Your task to perform on an android device: Search for a new hair product Image 0: 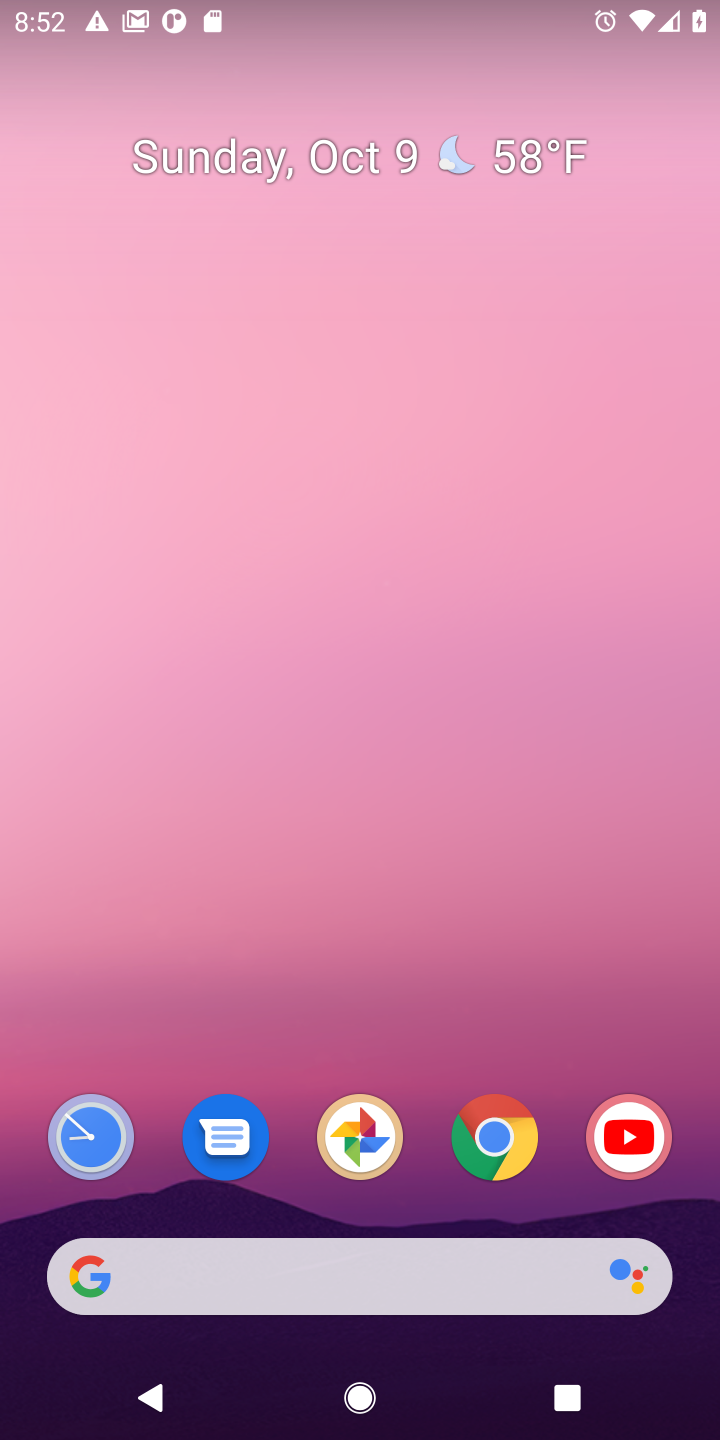
Step 0: drag from (439, 1049) to (457, 63)
Your task to perform on an android device: Search for a new hair product Image 1: 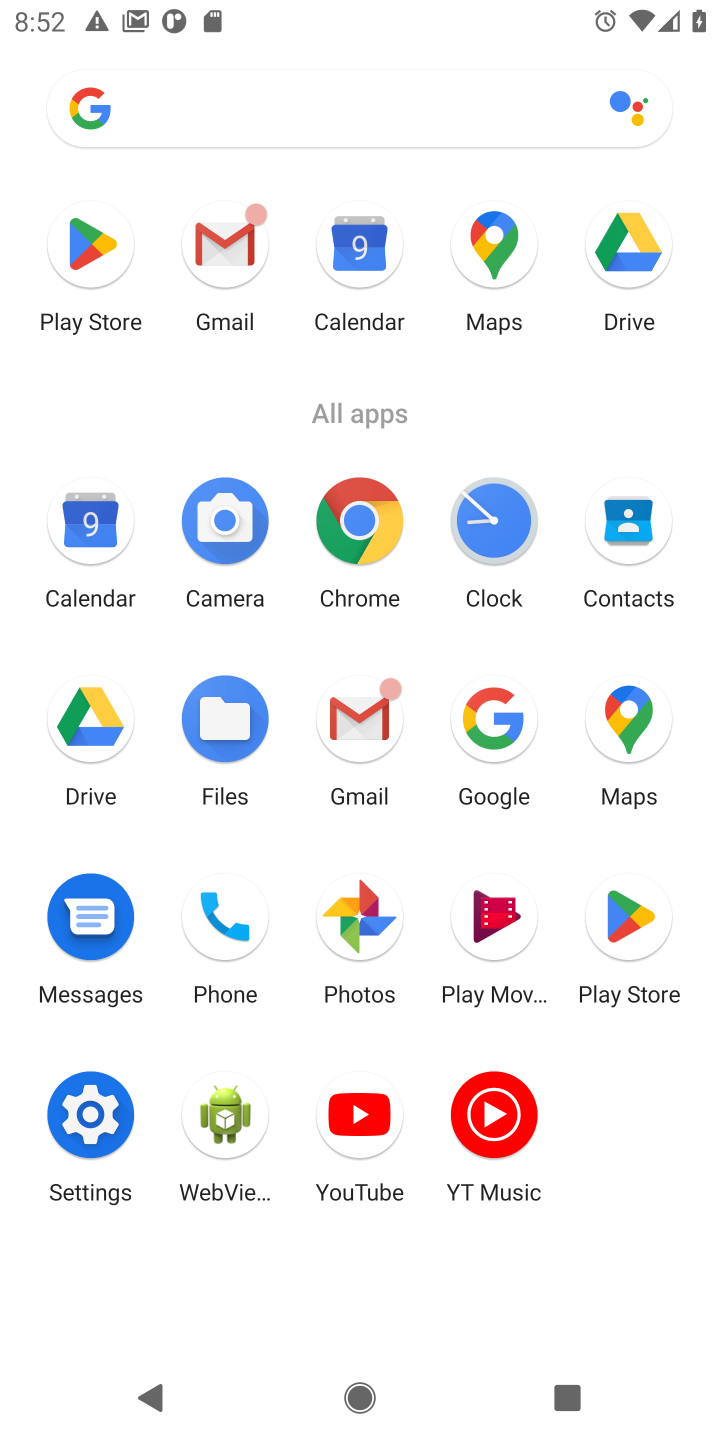
Step 1: click (343, 519)
Your task to perform on an android device: Search for a new hair product Image 2: 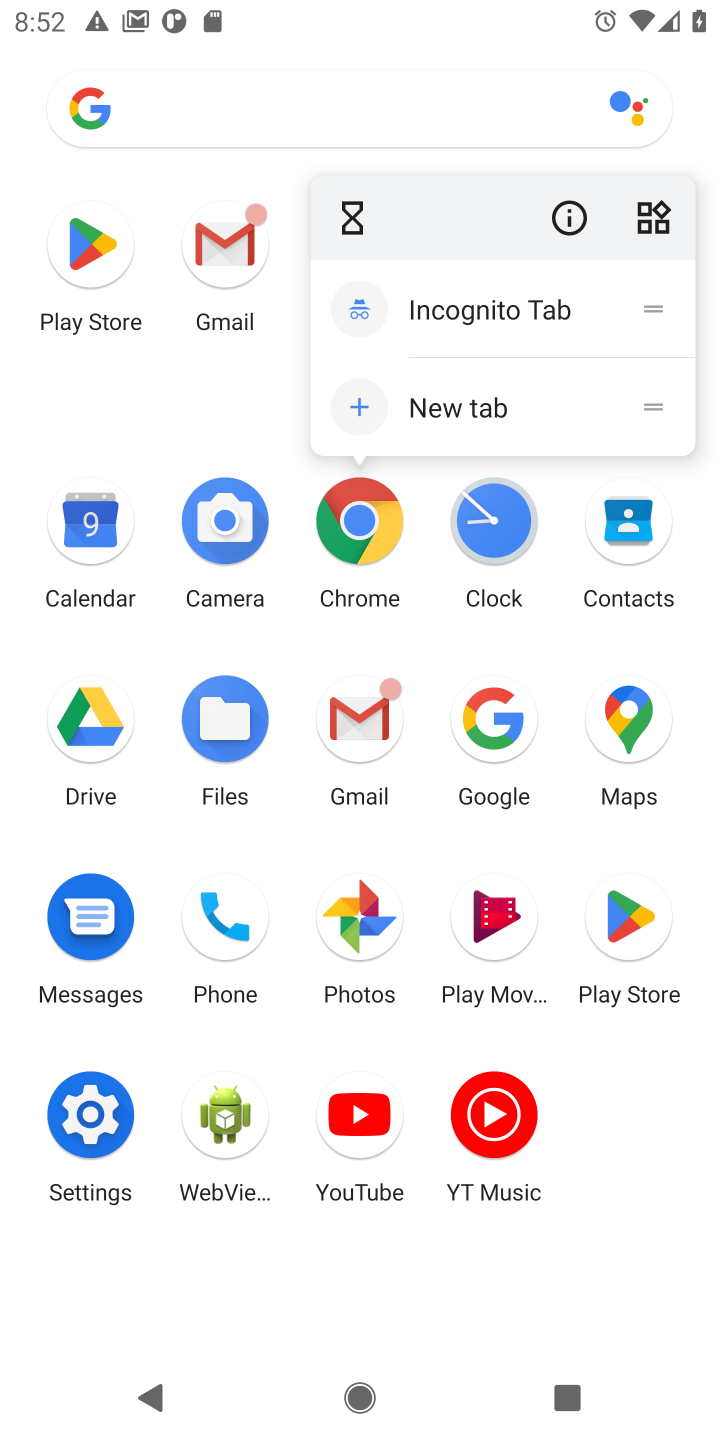
Step 2: click (355, 522)
Your task to perform on an android device: Search for a new hair product Image 3: 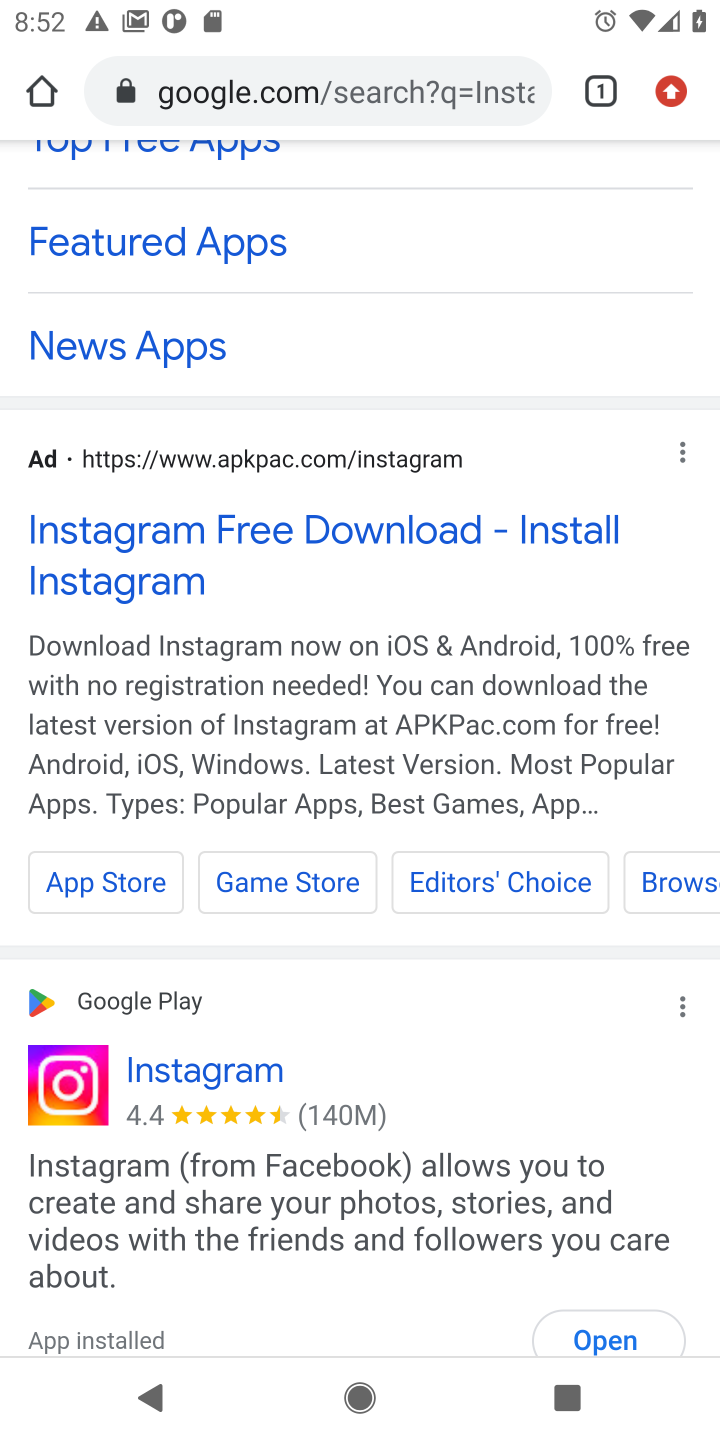
Step 3: click (420, 97)
Your task to perform on an android device: Search for a new hair product Image 4: 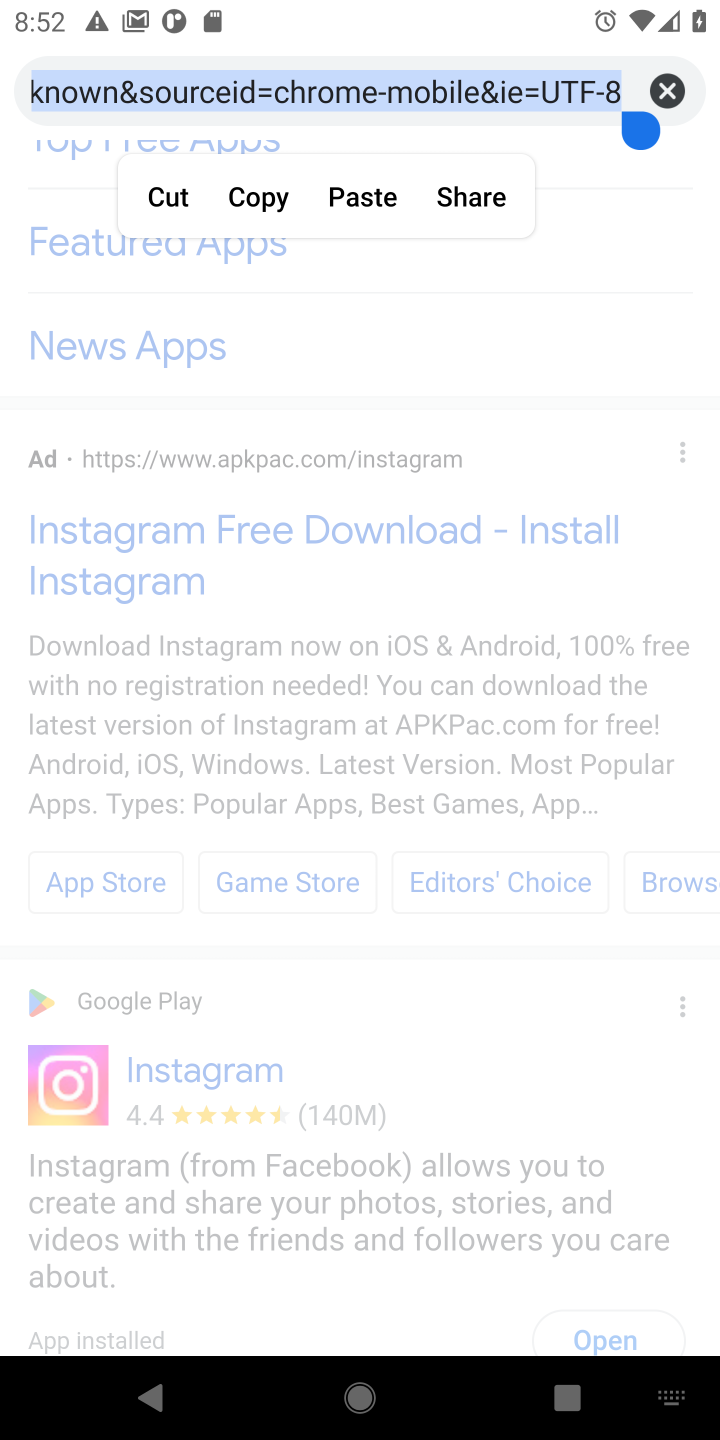
Step 4: click (673, 89)
Your task to perform on an android device: Search for a new hair product Image 5: 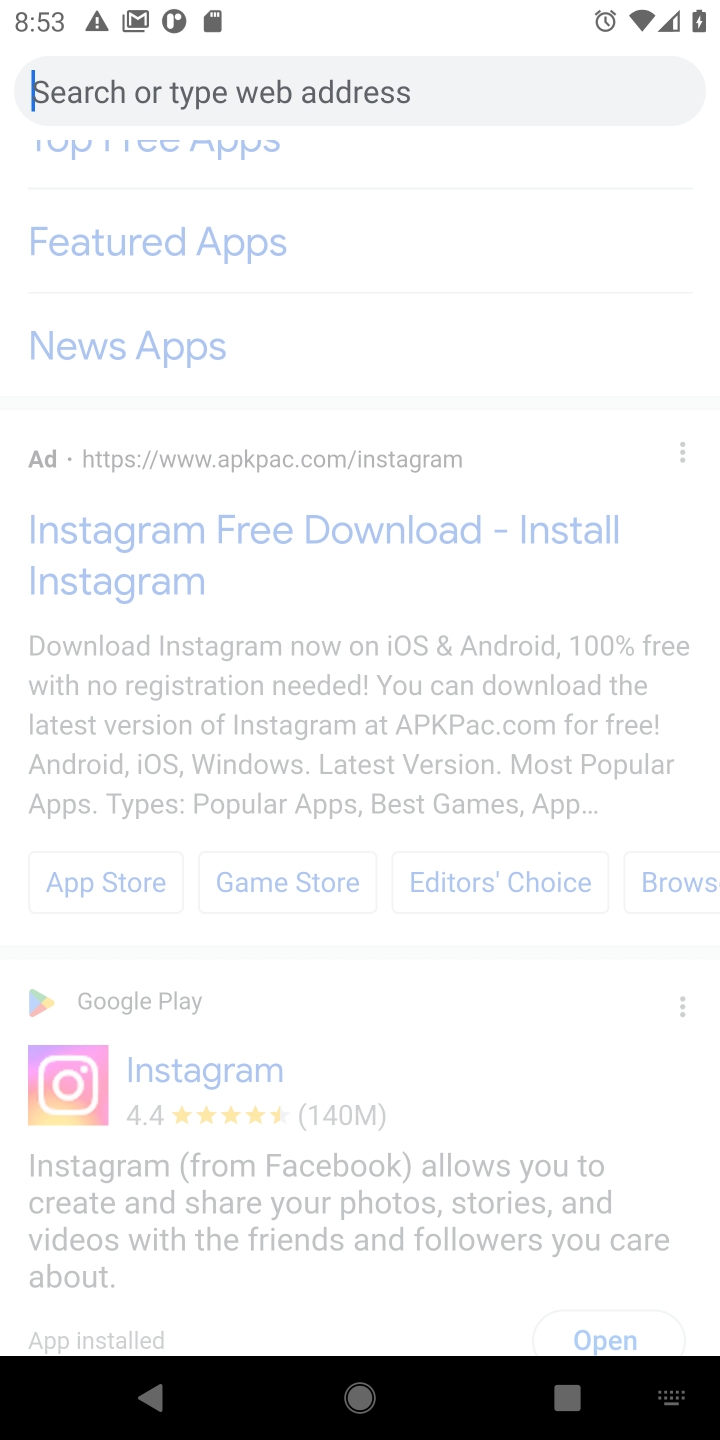
Step 5: type "Search for a new hair product"
Your task to perform on an android device: Search for a new hair product Image 6: 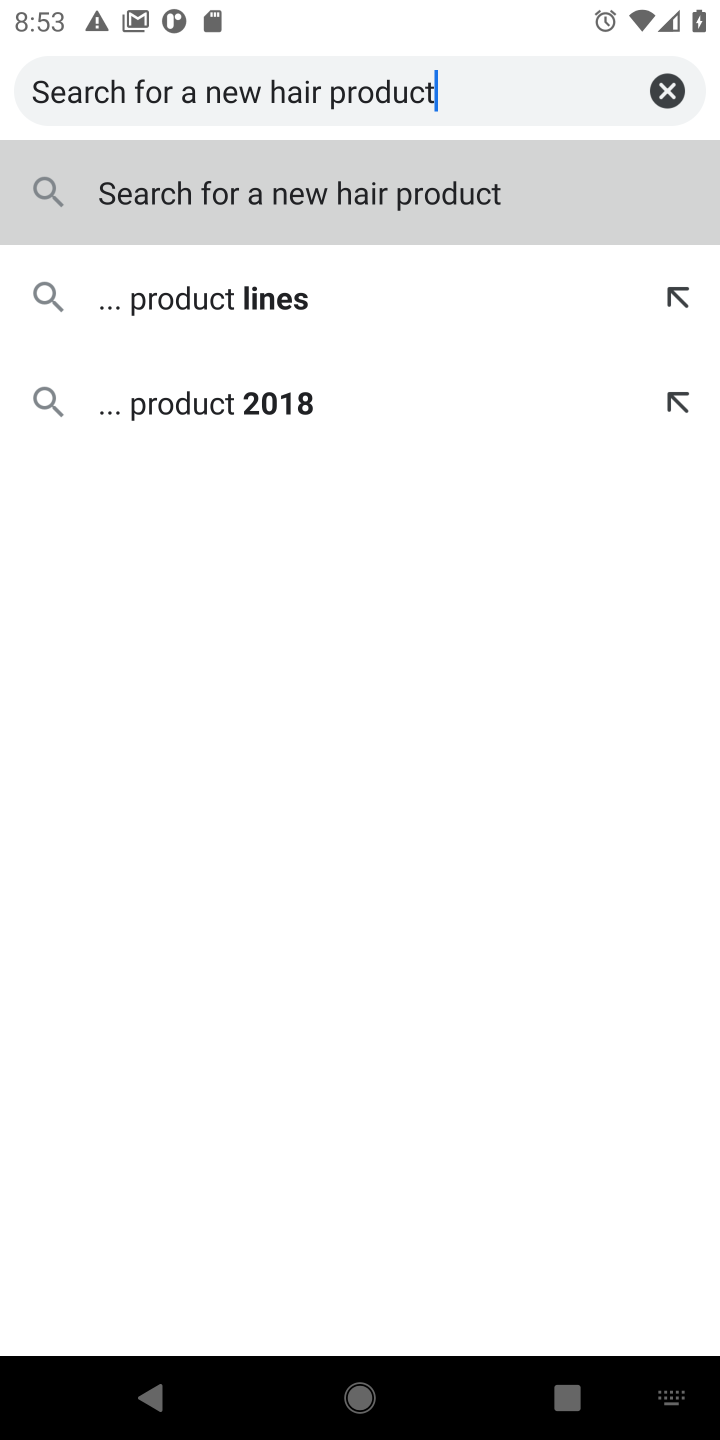
Step 6: click (358, 186)
Your task to perform on an android device: Search for a new hair product Image 7: 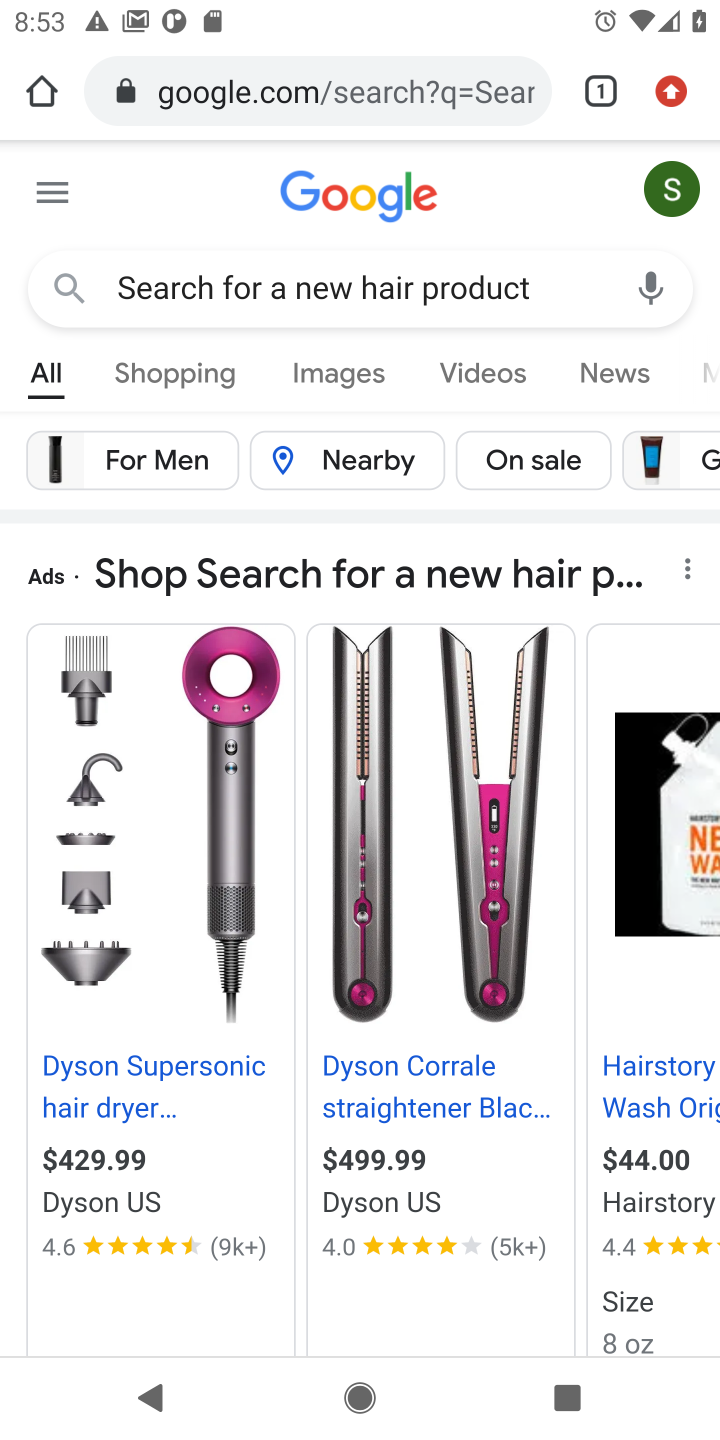
Step 7: task complete